Your task to perform on an android device: Go to Yahoo.com Image 0: 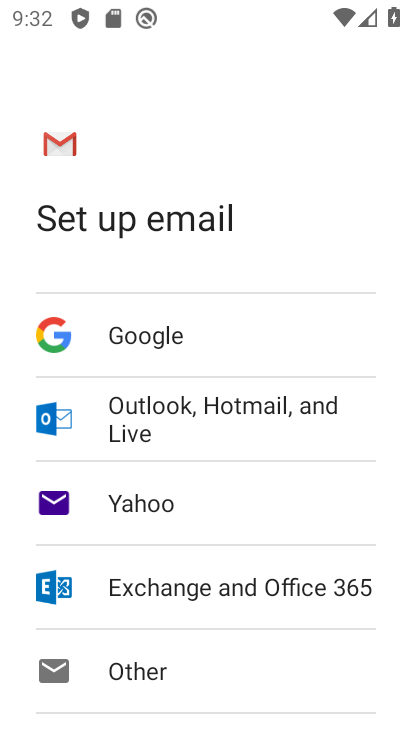
Step 0: press home button
Your task to perform on an android device: Go to Yahoo.com Image 1: 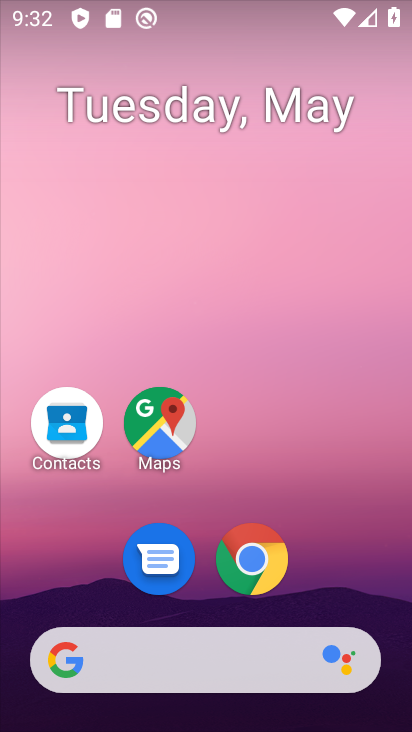
Step 1: click (216, 669)
Your task to perform on an android device: Go to Yahoo.com Image 2: 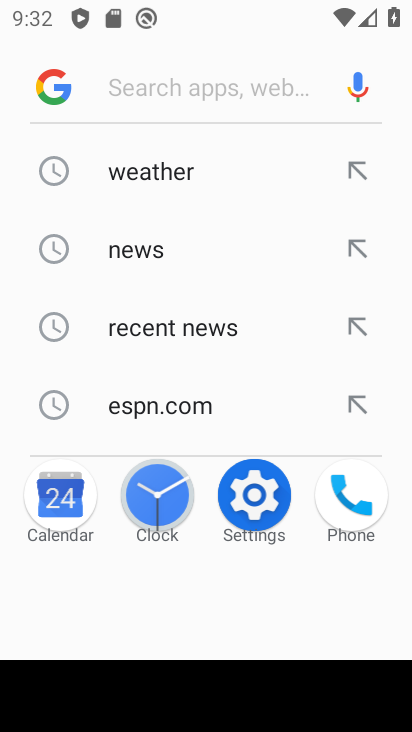
Step 2: click (171, 93)
Your task to perform on an android device: Go to Yahoo.com Image 3: 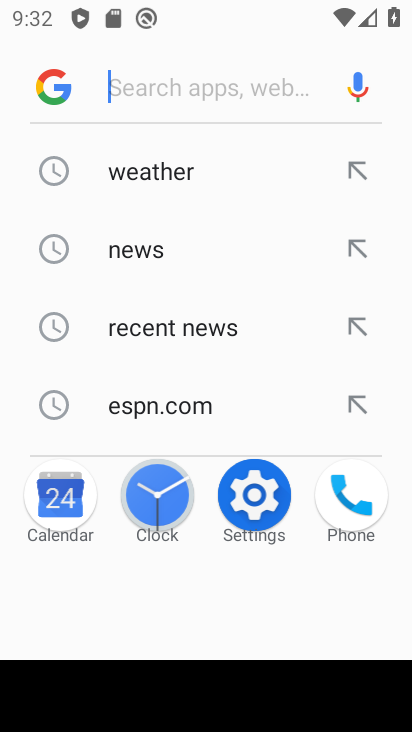
Step 3: type "yahoo.com"
Your task to perform on an android device: Go to Yahoo.com Image 4: 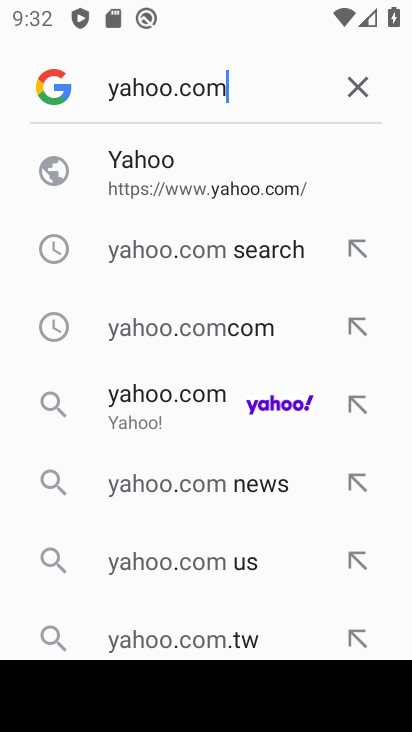
Step 4: click (176, 179)
Your task to perform on an android device: Go to Yahoo.com Image 5: 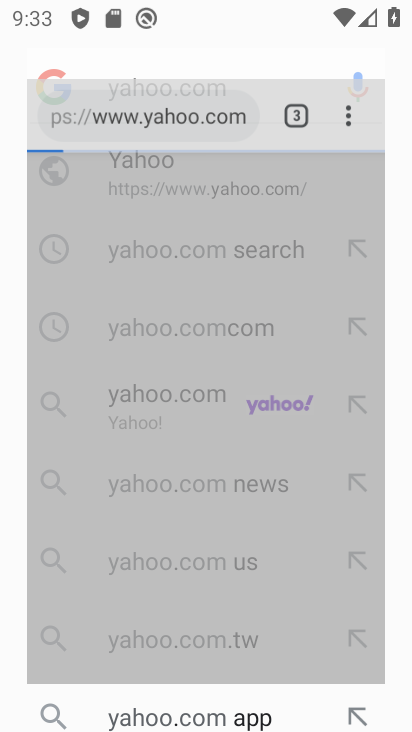
Step 5: task complete